Your task to perform on an android device: What's the weather going to be this weekend? Image 0: 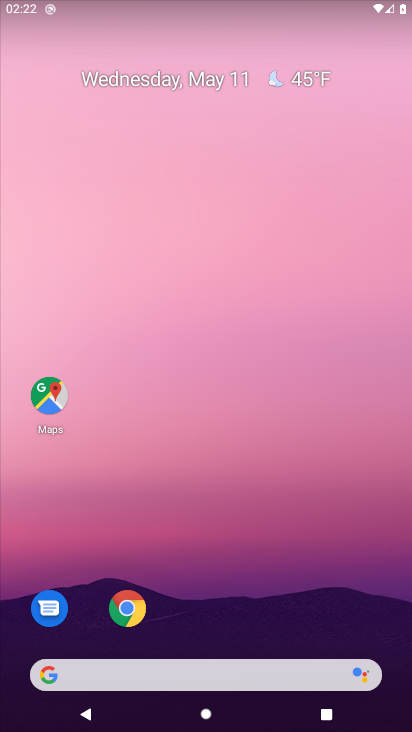
Step 0: press home button
Your task to perform on an android device: What's the weather going to be this weekend? Image 1: 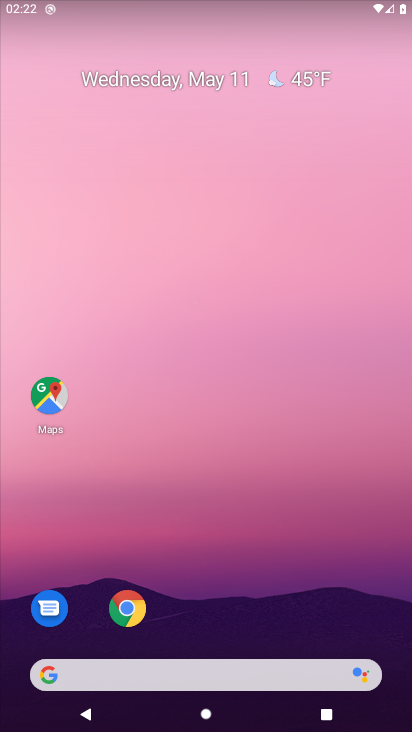
Step 1: drag from (201, 628) to (272, 101)
Your task to perform on an android device: What's the weather going to be this weekend? Image 2: 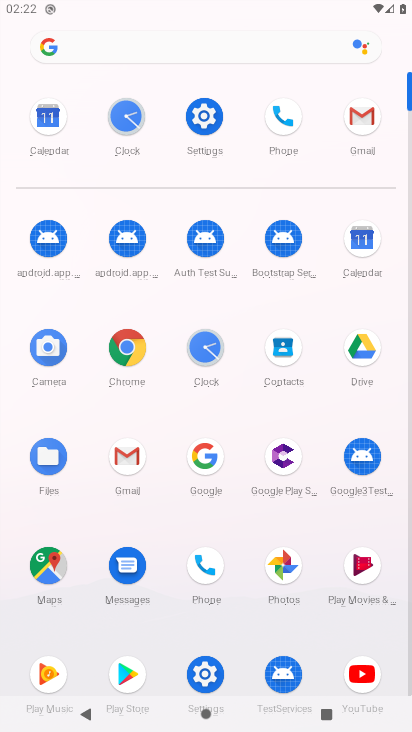
Step 2: press back button
Your task to perform on an android device: What's the weather going to be this weekend? Image 3: 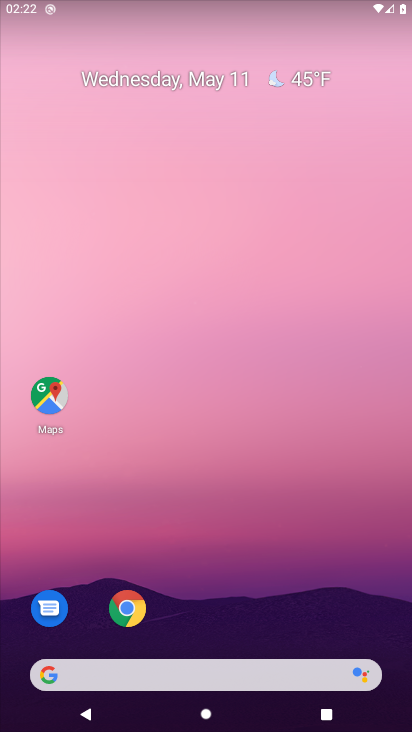
Step 3: click (308, 72)
Your task to perform on an android device: What's the weather going to be this weekend? Image 4: 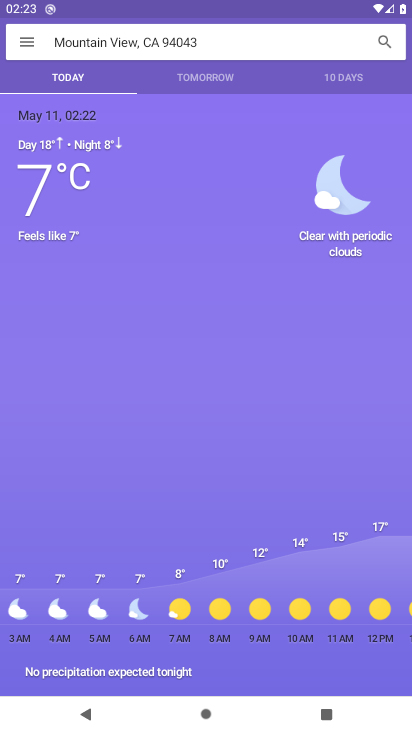
Step 4: click (346, 72)
Your task to perform on an android device: What's the weather going to be this weekend? Image 5: 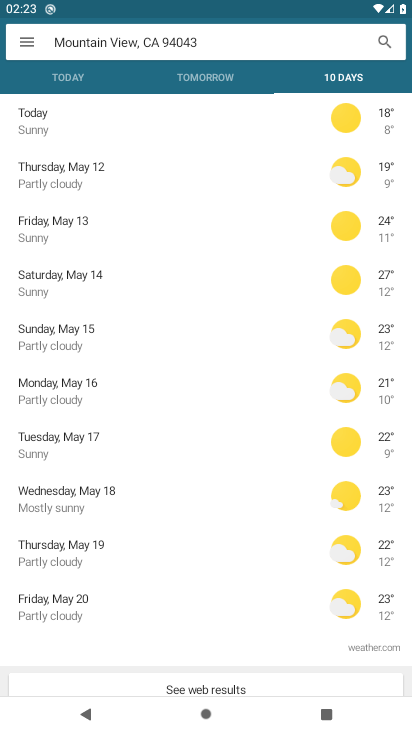
Step 5: task complete